Your task to perform on an android device: check data usage Image 0: 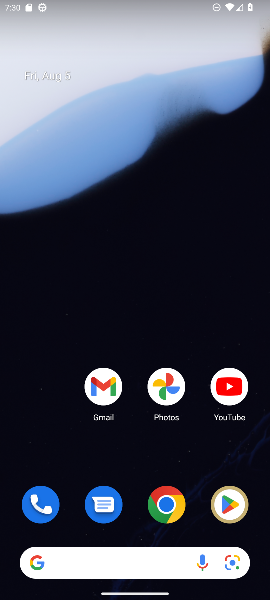
Step 0: click (109, 51)
Your task to perform on an android device: check data usage Image 1: 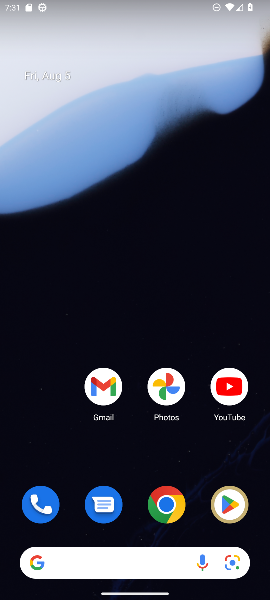
Step 1: drag from (116, 551) to (109, 92)
Your task to perform on an android device: check data usage Image 2: 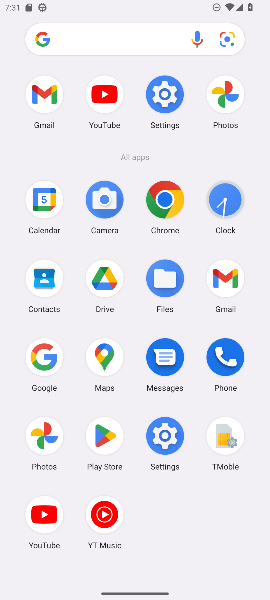
Step 2: click (155, 98)
Your task to perform on an android device: check data usage Image 3: 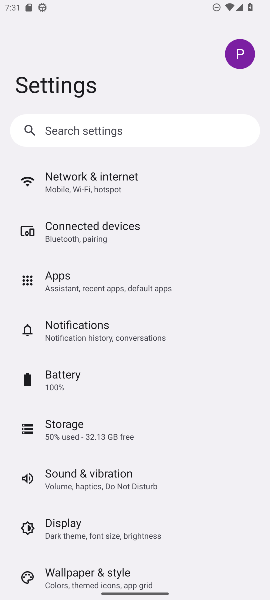
Step 3: click (119, 186)
Your task to perform on an android device: check data usage Image 4: 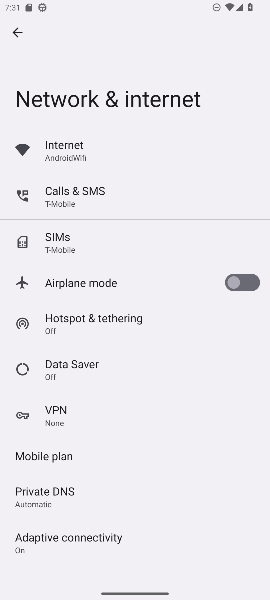
Step 4: click (93, 156)
Your task to perform on an android device: check data usage Image 5: 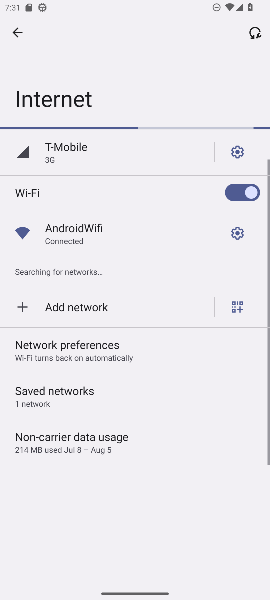
Step 5: click (93, 156)
Your task to perform on an android device: check data usage Image 6: 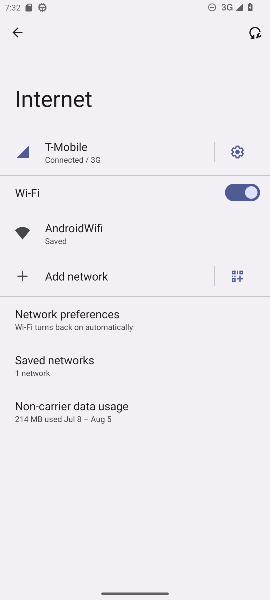
Step 6: click (122, 158)
Your task to perform on an android device: check data usage Image 7: 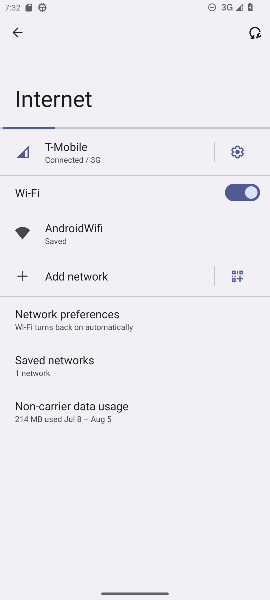
Step 7: click (198, 151)
Your task to perform on an android device: check data usage Image 8: 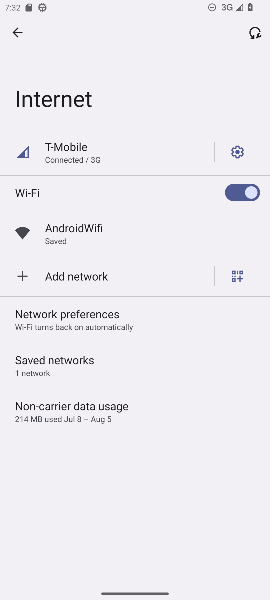
Step 8: click (240, 150)
Your task to perform on an android device: check data usage Image 9: 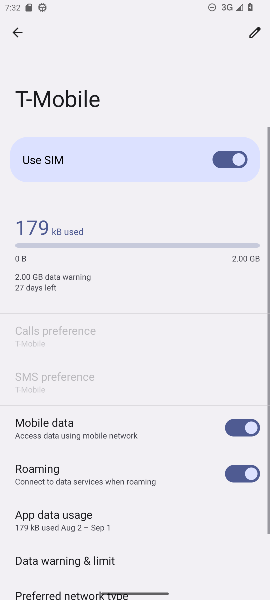
Step 9: task complete